Your task to perform on an android device: Open maps Image 0: 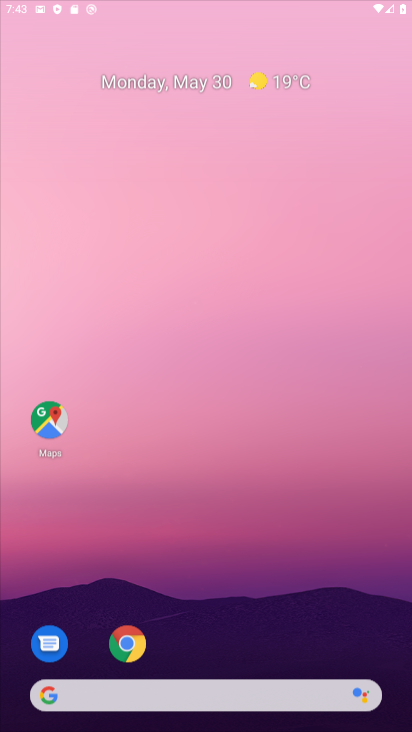
Step 0: drag from (257, 67) to (271, 36)
Your task to perform on an android device: Open maps Image 1: 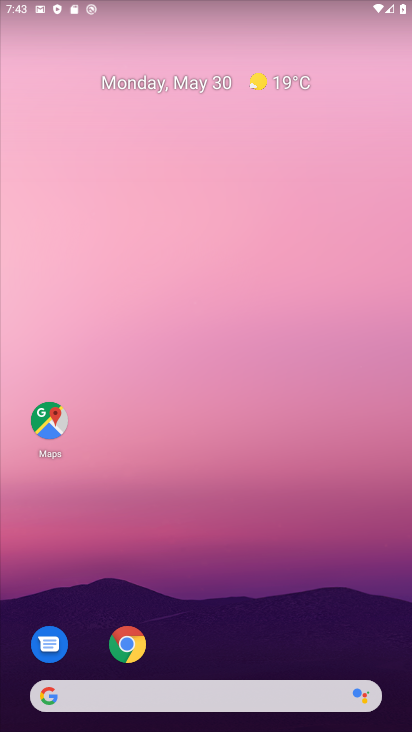
Step 1: click (48, 418)
Your task to perform on an android device: Open maps Image 2: 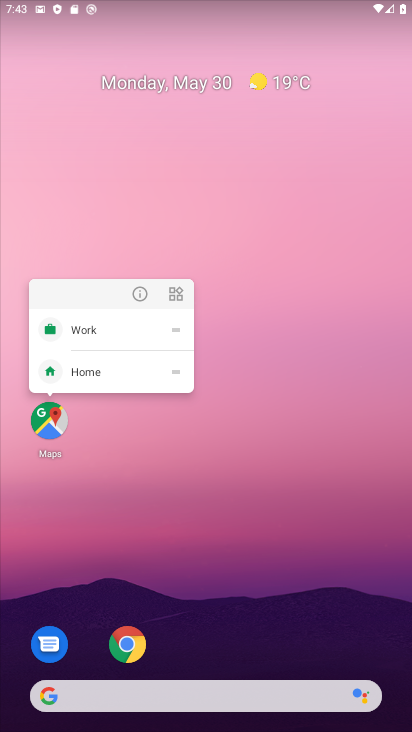
Step 2: click (138, 290)
Your task to perform on an android device: Open maps Image 3: 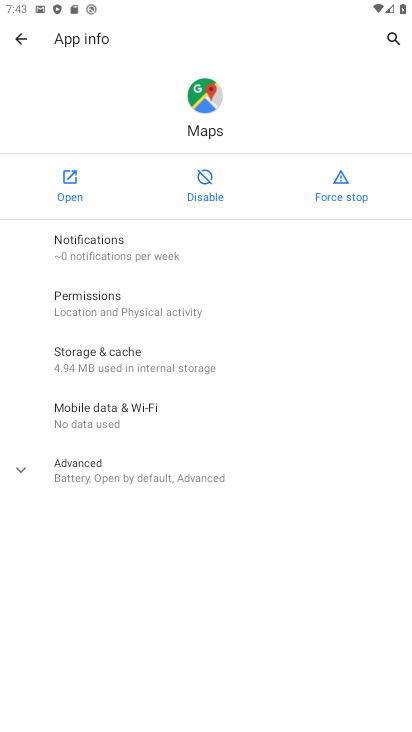
Step 3: click (65, 195)
Your task to perform on an android device: Open maps Image 4: 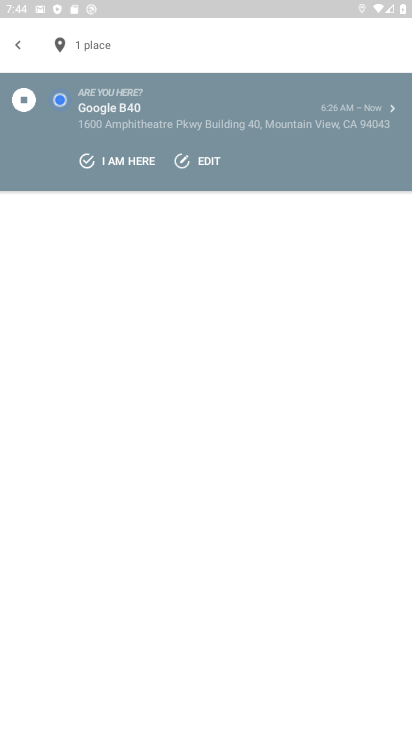
Step 4: task complete